Your task to perform on an android device: Open the web browser Image 0: 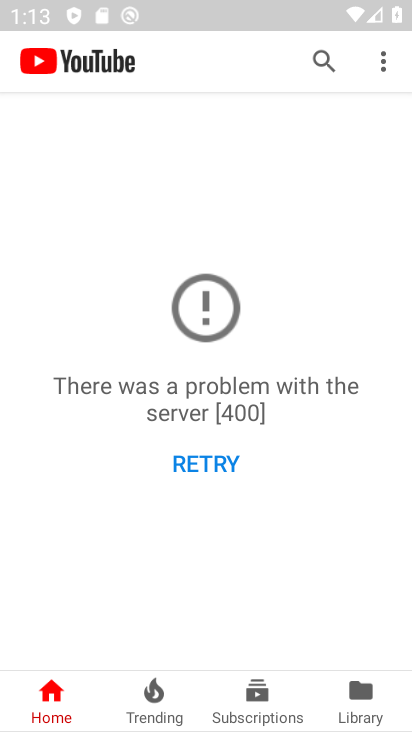
Step 0: press home button
Your task to perform on an android device: Open the web browser Image 1: 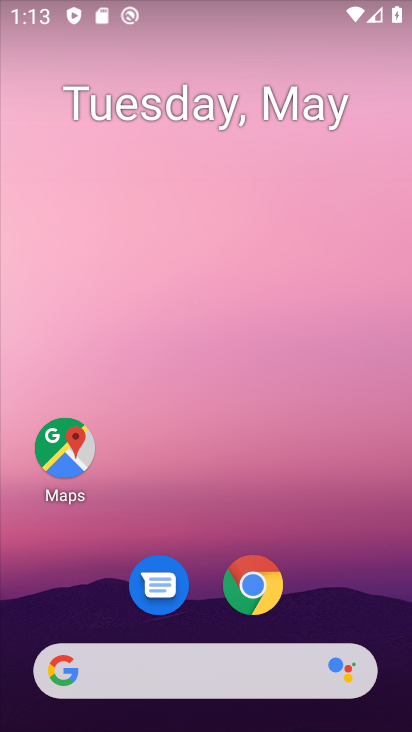
Step 1: click (258, 584)
Your task to perform on an android device: Open the web browser Image 2: 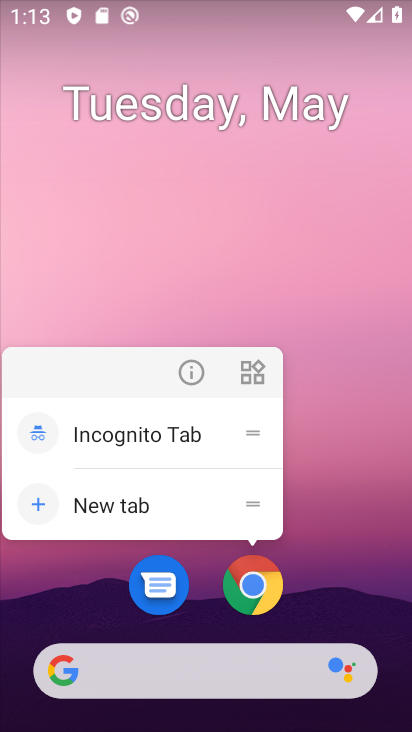
Step 2: click (258, 584)
Your task to perform on an android device: Open the web browser Image 3: 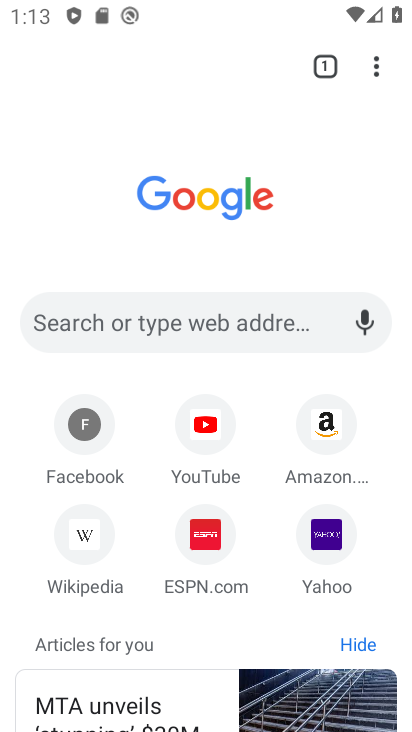
Step 3: task complete